Your task to perform on an android device: Set the phone to "Do not disturb". Image 0: 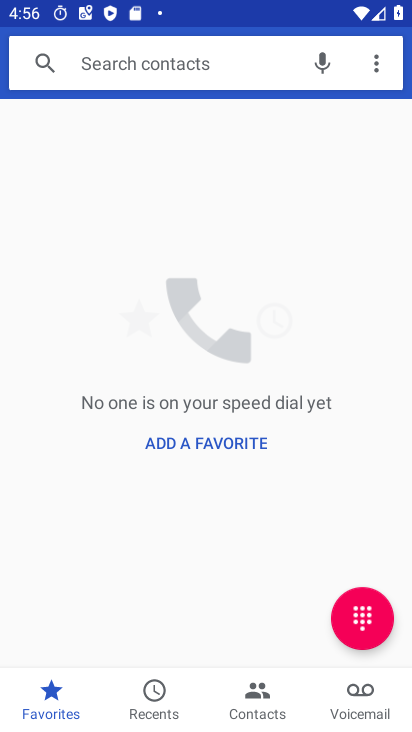
Step 0: drag from (249, 617) to (254, 259)
Your task to perform on an android device: Set the phone to "Do not disturb". Image 1: 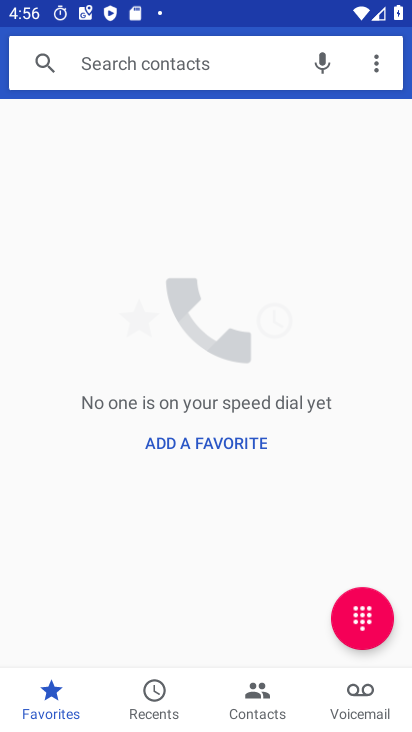
Step 1: drag from (235, 576) to (187, 305)
Your task to perform on an android device: Set the phone to "Do not disturb". Image 2: 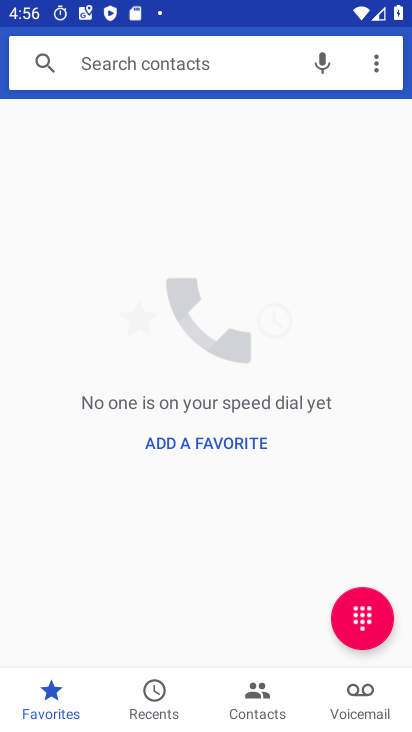
Step 2: drag from (251, 607) to (209, 363)
Your task to perform on an android device: Set the phone to "Do not disturb". Image 3: 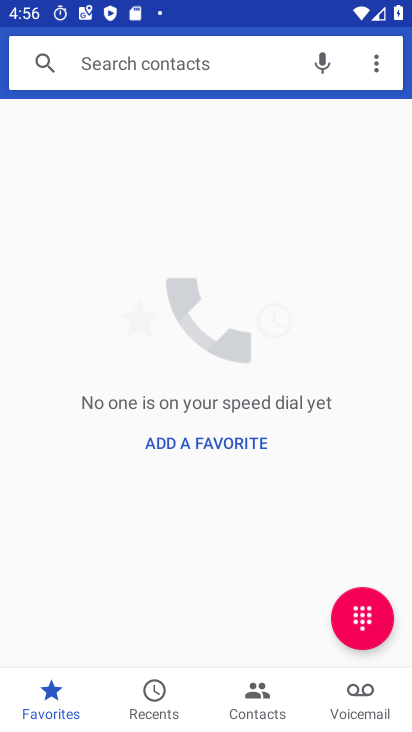
Step 3: drag from (217, 616) to (219, 426)
Your task to perform on an android device: Set the phone to "Do not disturb". Image 4: 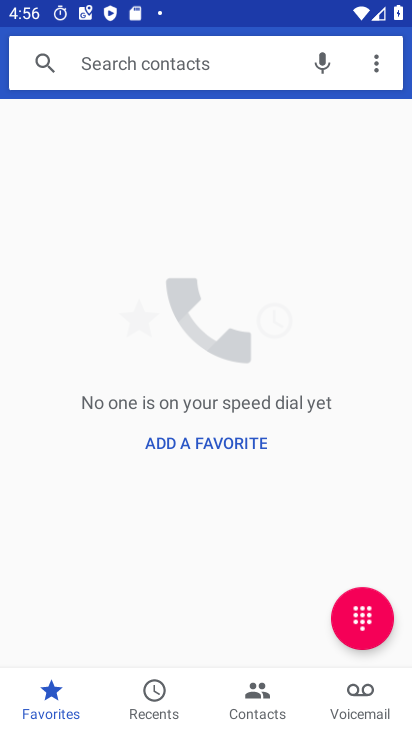
Step 4: press home button
Your task to perform on an android device: Set the phone to "Do not disturb". Image 5: 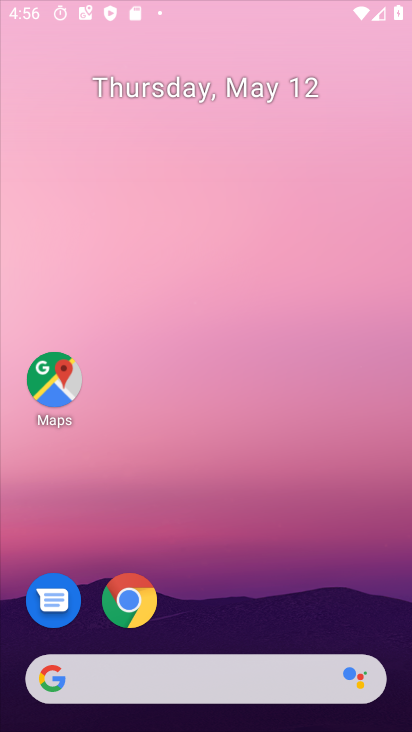
Step 5: drag from (175, 621) to (205, 229)
Your task to perform on an android device: Set the phone to "Do not disturb". Image 6: 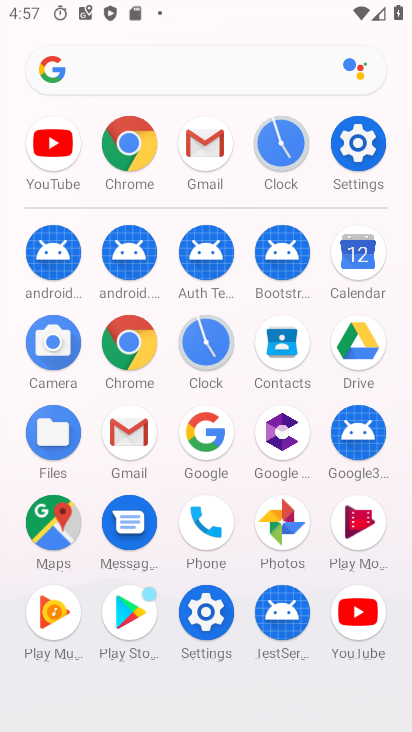
Step 6: click (202, 613)
Your task to perform on an android device: Set the phone to "Do not disturb". Image 7: 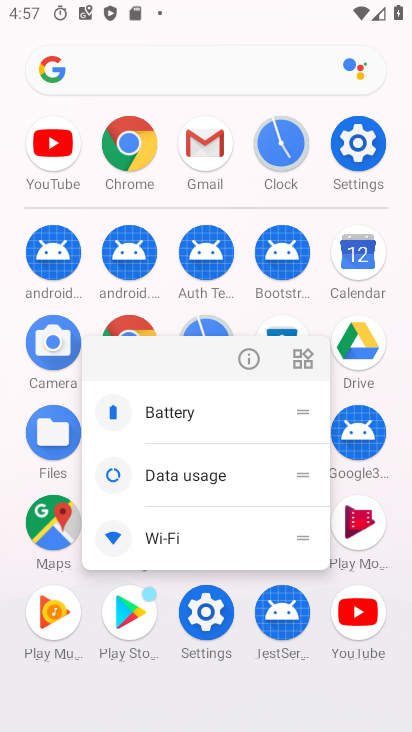
Step 7: click (242, 347)
Your task to perform on an android device: Set the phone to "Do not disturb". Image 8: 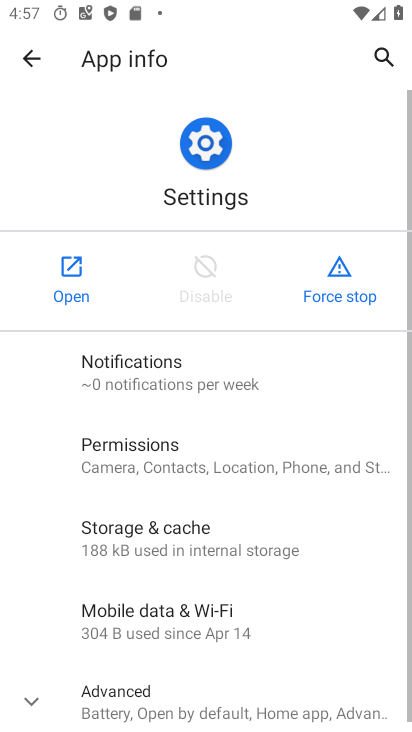
Step 8: click (71, 285)
Your task to perform on an android device: Set the phone to "Do not disturb". Image 9: 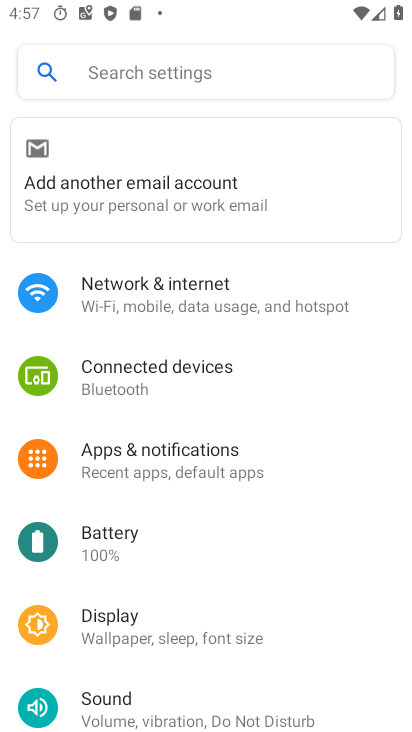
Step 9: drag from (216, 576) to (250, 322)
Your task to perform on an android device: Set the phone to "Do not disturb". Image 10: 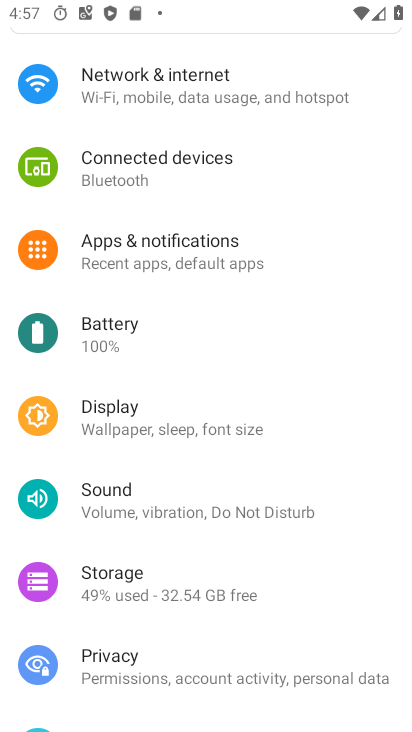
Step 10: click (177, 247)
Your task to perform on an android device: Set the phone to "Do not disturb". Image 11: 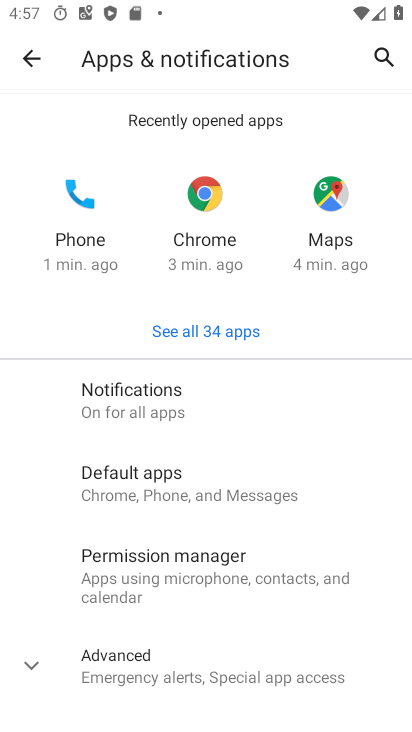
Step 11: click (162, 419)
Your task to perform on an android device: Set the phone to "Do not disturb". Image 12: 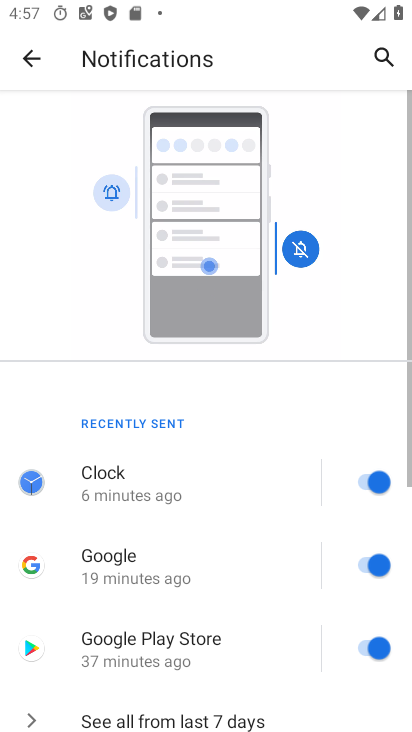
Step 12: drag from (207, 597) to (328, 197)
Your task to perform on an android device: Set the phone to "Do not disturb". Image 13: 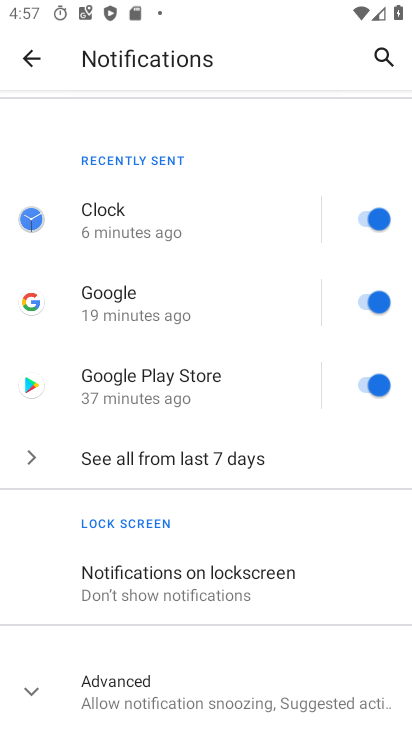
Step 13: drag from (204, 726) to (290, 347)
Your task to perform on an android device: Set the phone to "Do not disturb". Image 14: 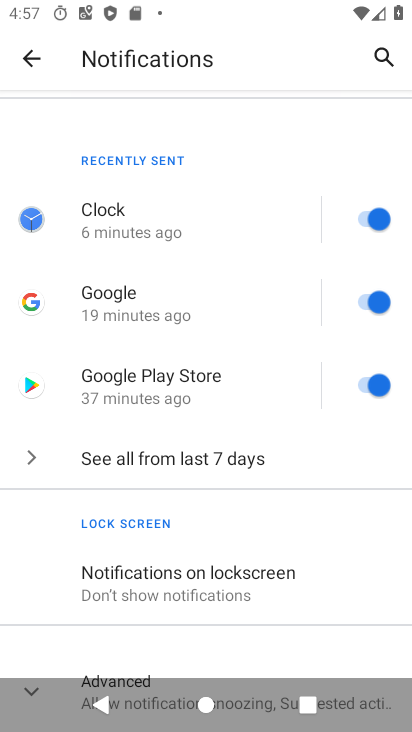
Step 14: drag from (173, 660) to (268, 376)
Your task to perform on an android device: Set the phone to "Do not disturb". Image 15: 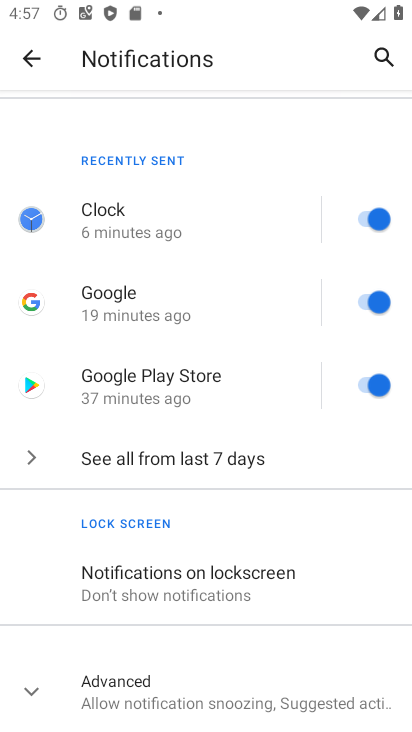
Step 15: click (170, 681)
Your task to perform on an android device: Set the phone to "Do not disturb". Image 16: 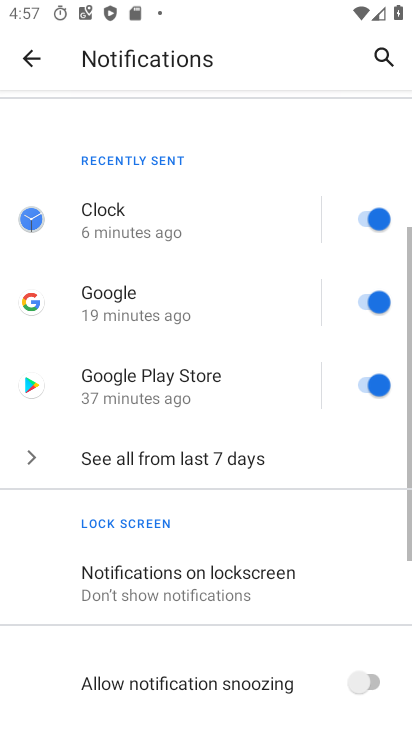
Step 16: drag from (170, 677) to (329, 190)
Your task to perform on an android device: Set the phone to "Do not disturb". Image 17: 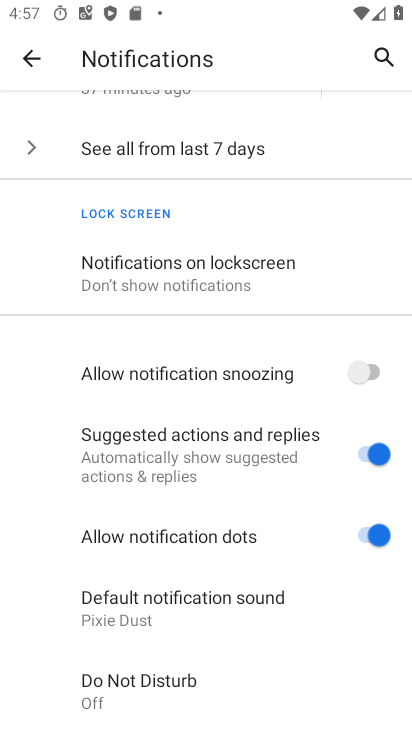
Step 17: click (218, 673)
Your task to perform on an android device: Set the phone to "Do not disturb". Image 18: 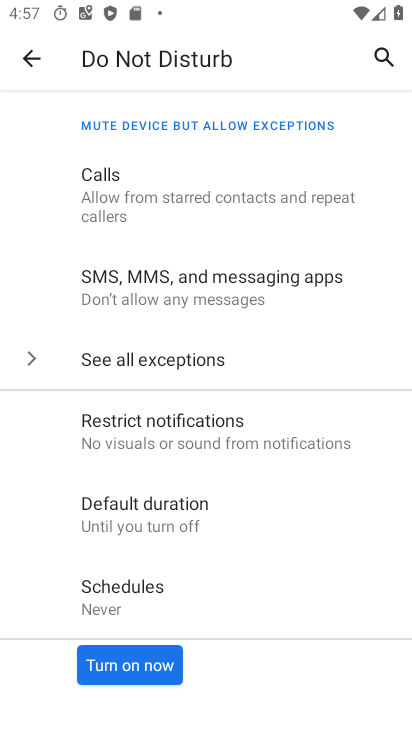
Step 18: click (159, 667)
Your task to perform on an android device: Set the phone to "Do not disturb". Image 19: 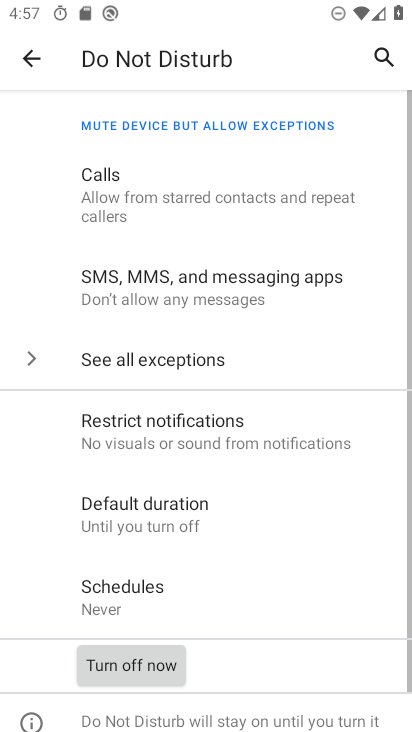
Step 19: task complete